Your task to perform on an android device: Go to Maps Image 0: 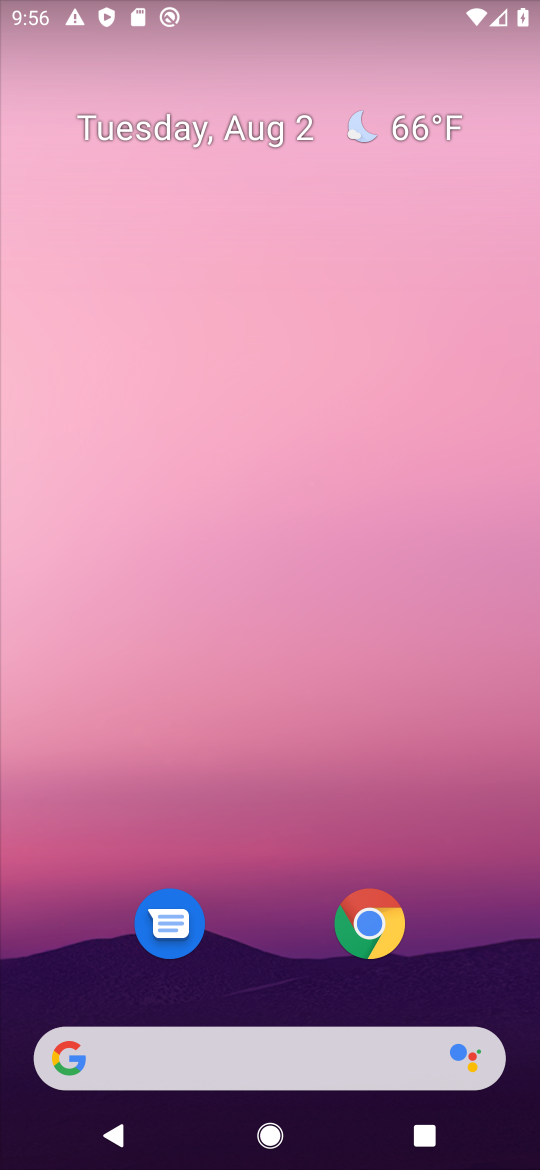
Step 0: press home button
Your task to perform on an android device: Go to Maps Image 1: 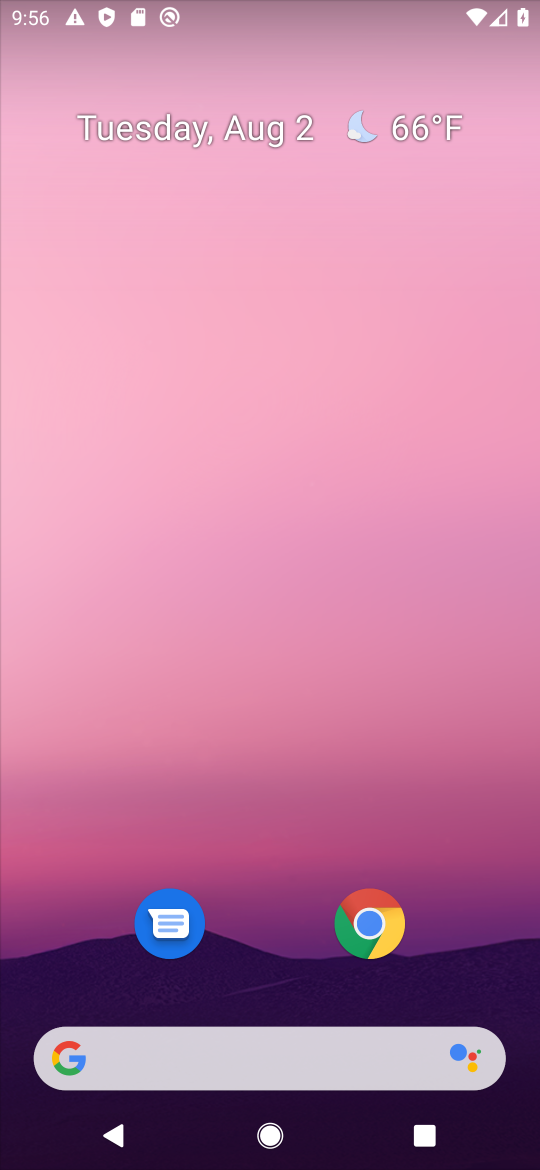
Step 1: drag from (443, 912) to (362, 119)
Your task to perform on an android device: Go to Maps Image 2: 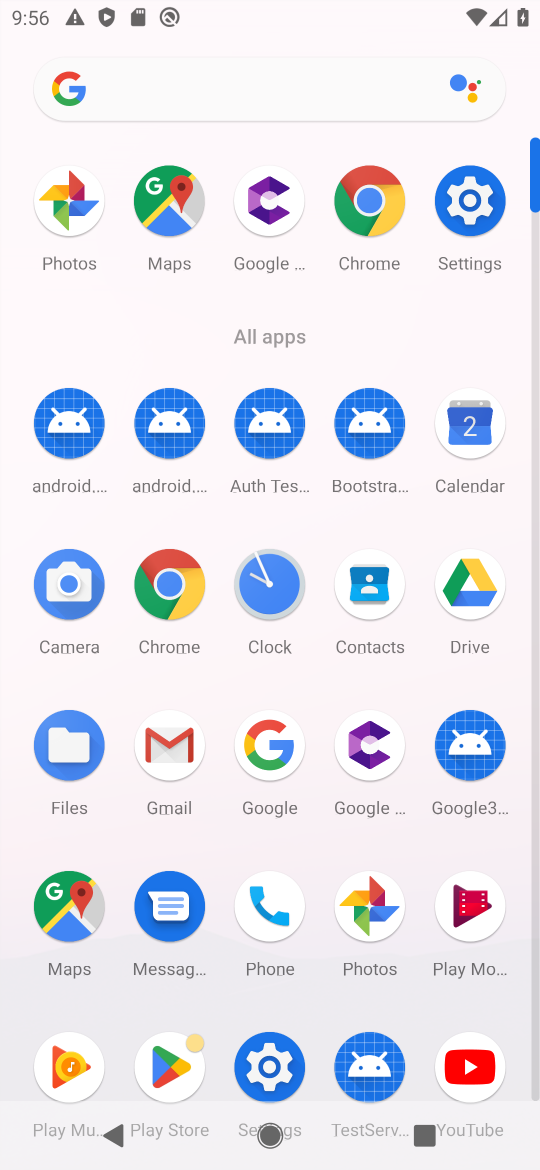
Step 2: click (161, 186)
Your task to perform on an android device: Go to Maps Image 3: 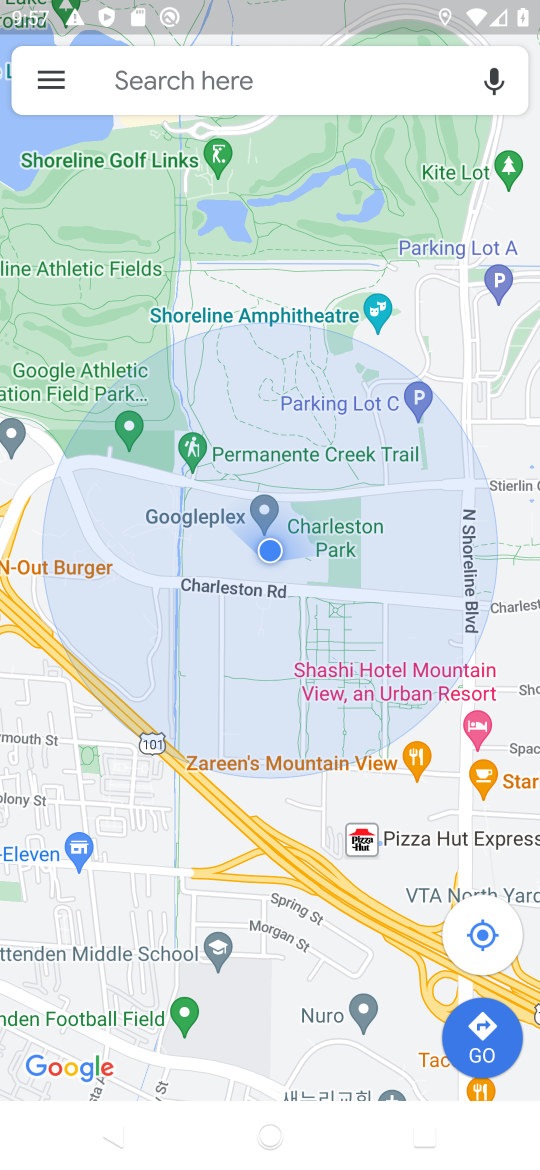
Step 3: task complete